Your task to perform on an android device: Search for bose soundsport free on newegg.com, select the first entry, and add it to the cart. Image 0: 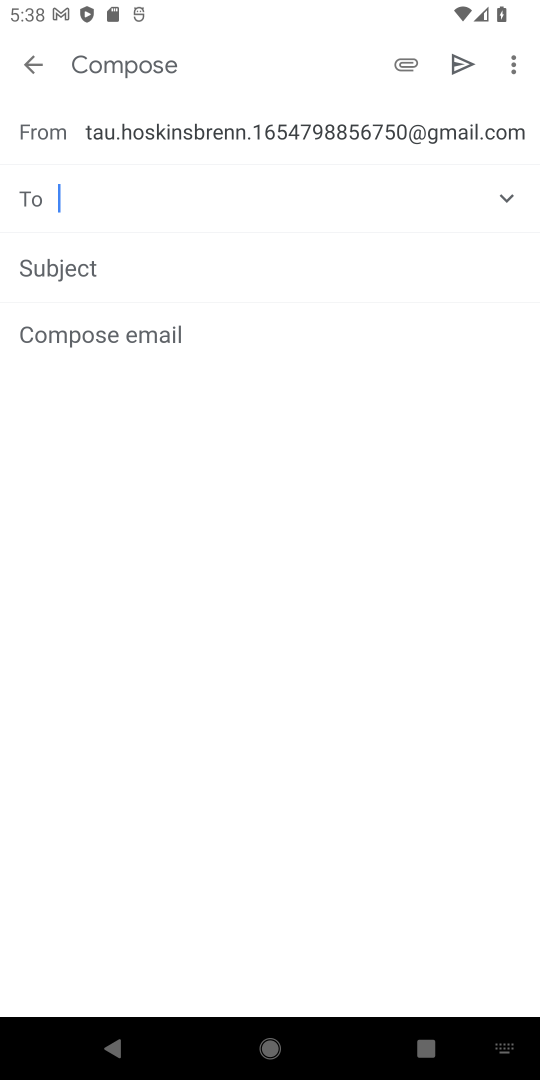
Step 0: press home button
Your task to perform on an android device: Search for bose soundsport free on newegg.com, select the first entry, and add it to the cart. Image 1: 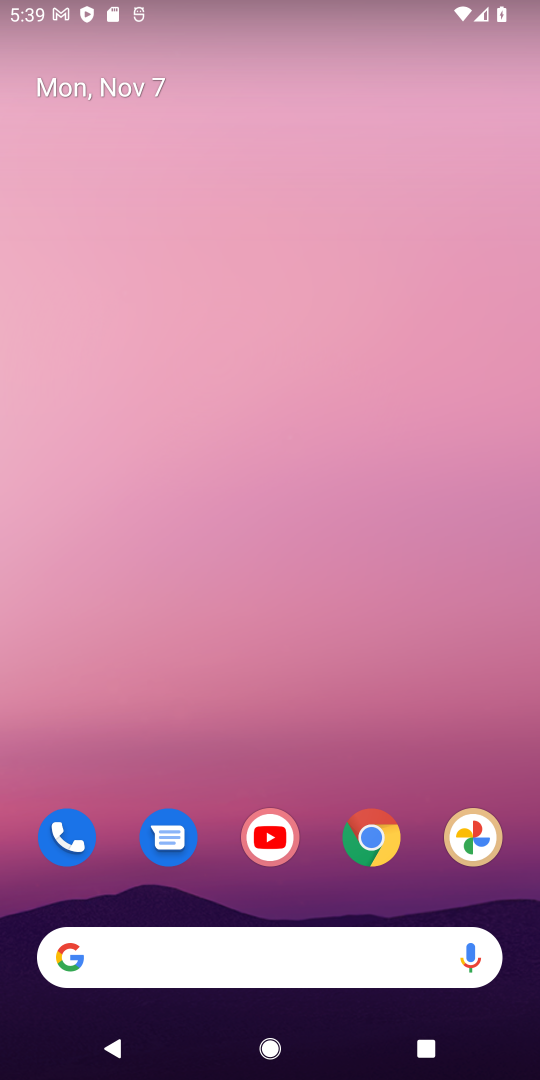
Step 1: click (368, 827)
Your task to perform on an android device: Search for bose soundsport free on newegg.com, select the first entry, and add it to the cart. Image 2: 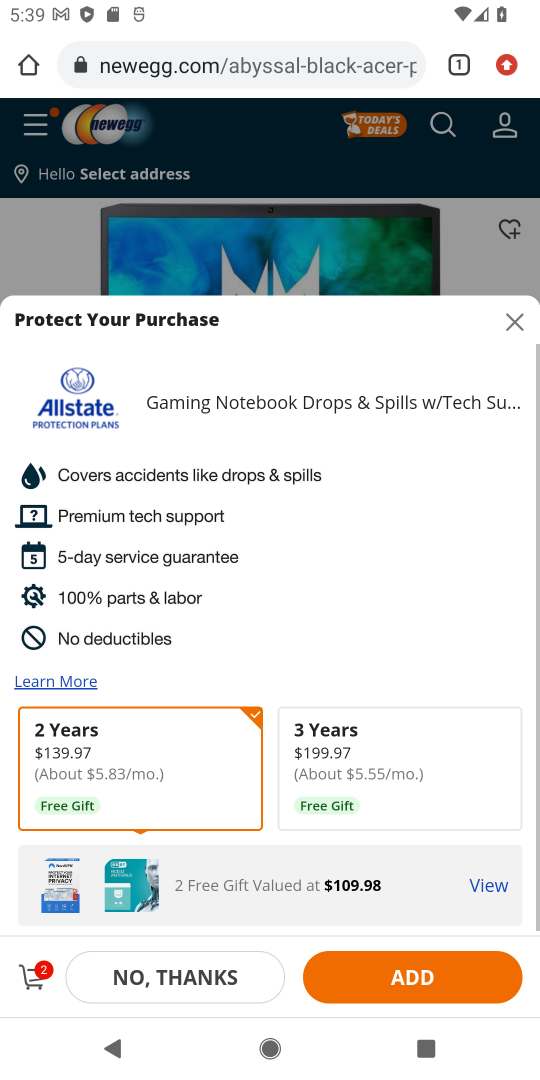
Step 2: click (326, 68)
Your task to perform on an android device: Search for bose soundsport free on newegg.com, select the first entry, and add it to the cart. Image 3: 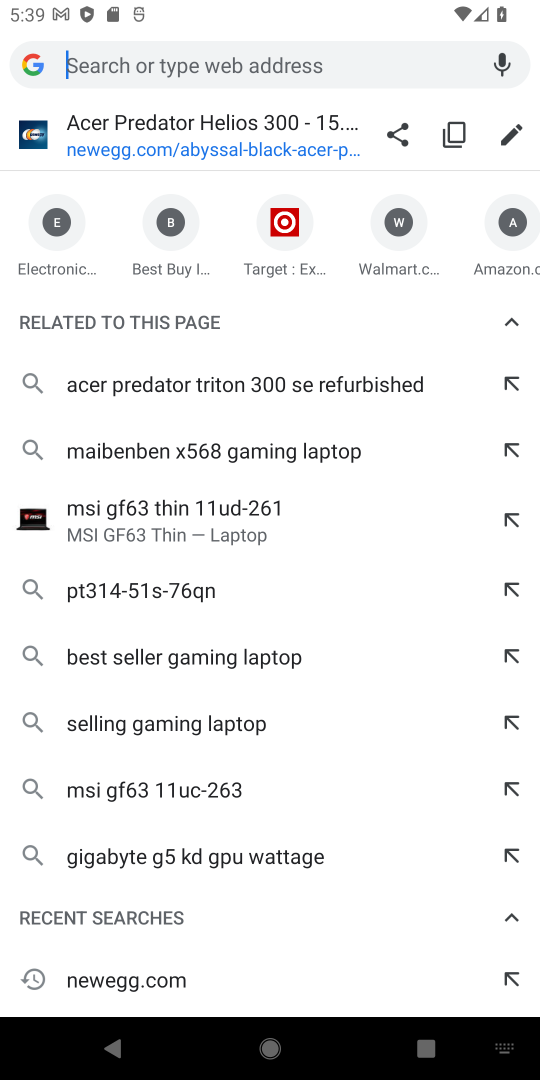
Step 3: type "newegg.com"
Your task to perform on an android device: Search for bose soundsport free on newegg.com, select the first entry, and add it to the cart. Image 4: 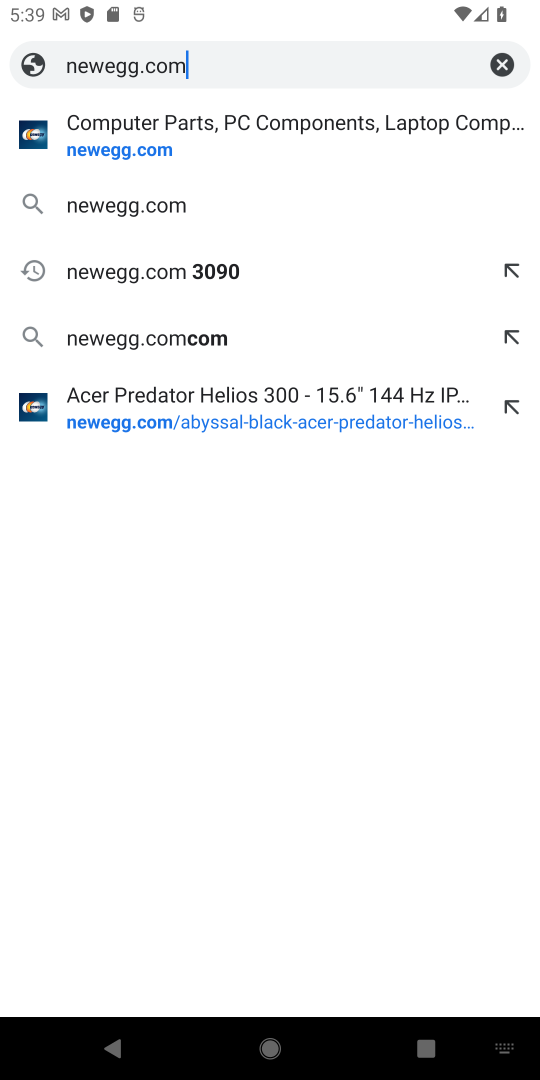
Step 4: click (231, 122)
Your task to perform on an android device: Search for bose soundsport free on newegg.com, select the first entry, and add it to the cart. Image 5: 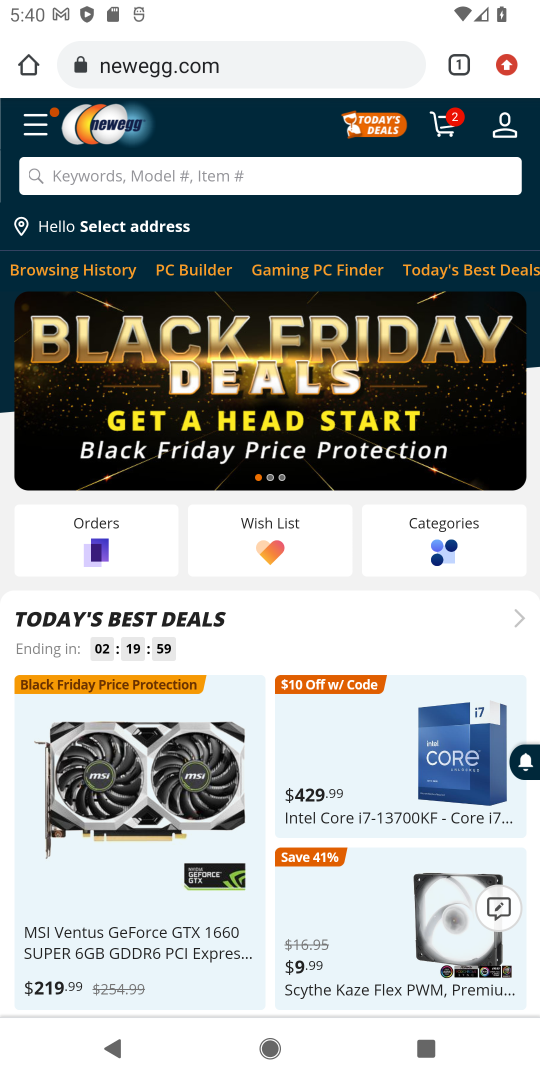
Step 5: click (253, 192)
Your task to perform on an android device: Search for bose soundsport free on newegg.com, select the first entry, and add it to the cart. Image 6: 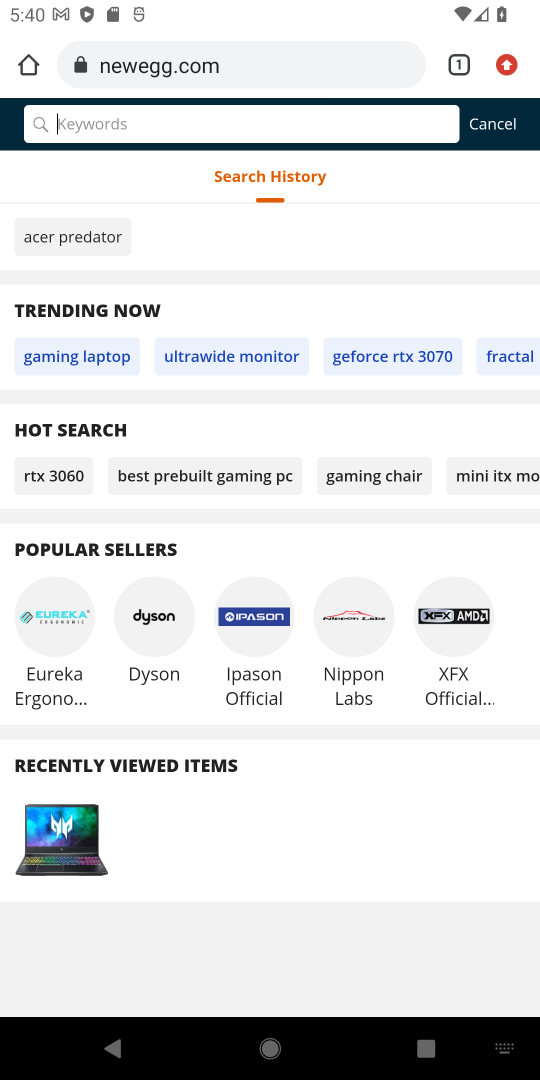
Step 6: type "bose soundsport"
Your task to perform on an android device: Search for bose soundsport free on newegg.com, select the first entry, and add it to the cart. Image 7: 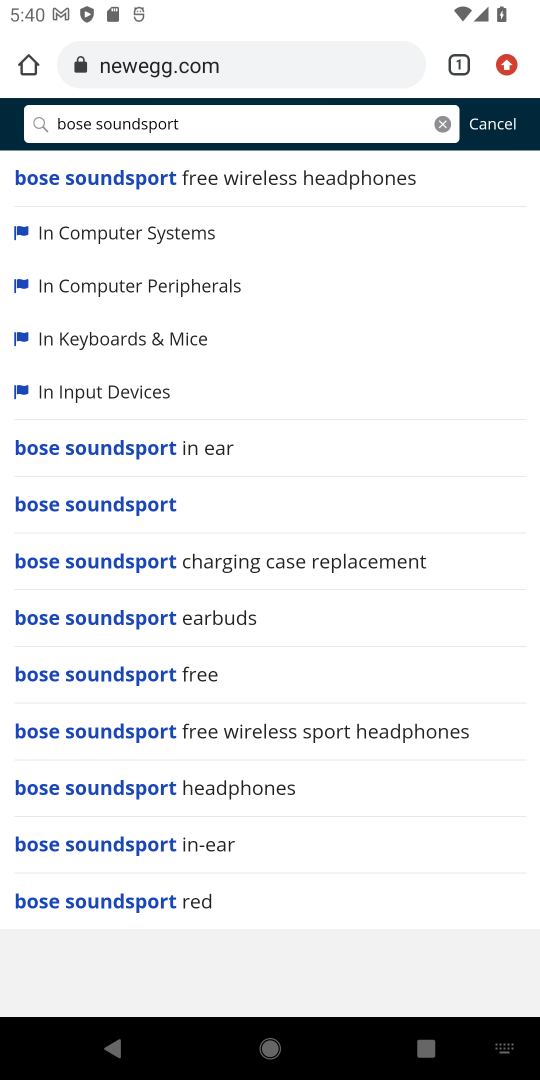
Step 7: press enter
Your task to perform on an android device: Search for bose soundsport free on newegg.com, select the first entry, and add it to the cart. Image 8: 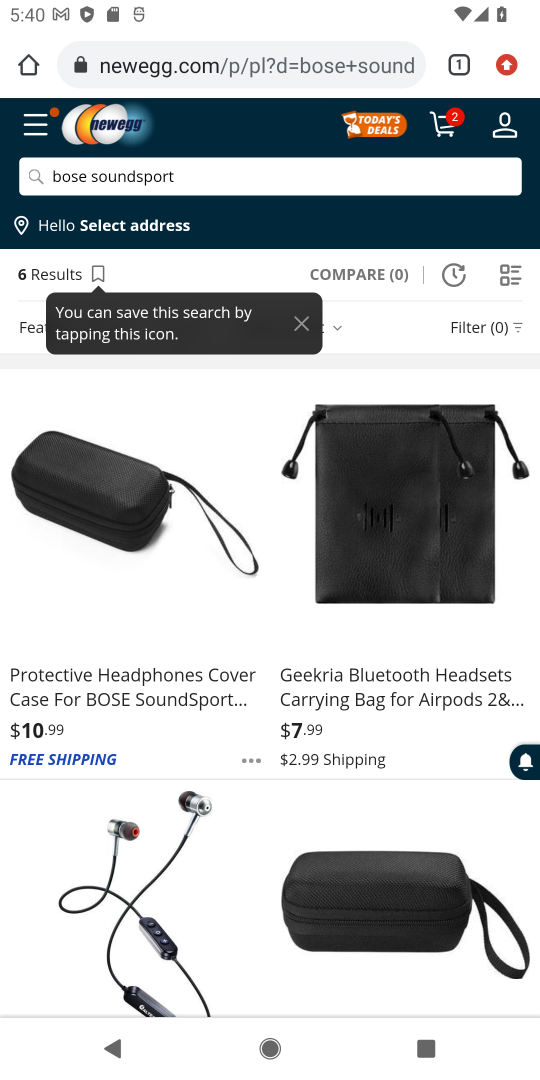
Step 8: click (159, 548)
Your task to perform on an android device: Search for bose soundsport free on newegg.com, select the first entry, and add it to the cart. Image 9: 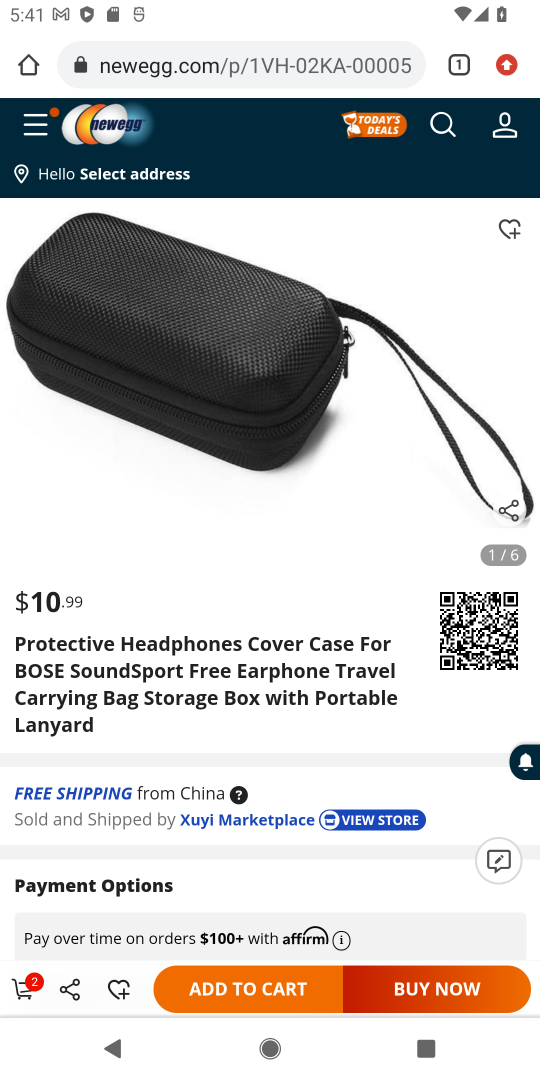
Step 9: click (233, 996)
Your task to perform on an android device: Search for bose soundsport free on newegg.com, select the first entry, and add it to the cart. Image 10: 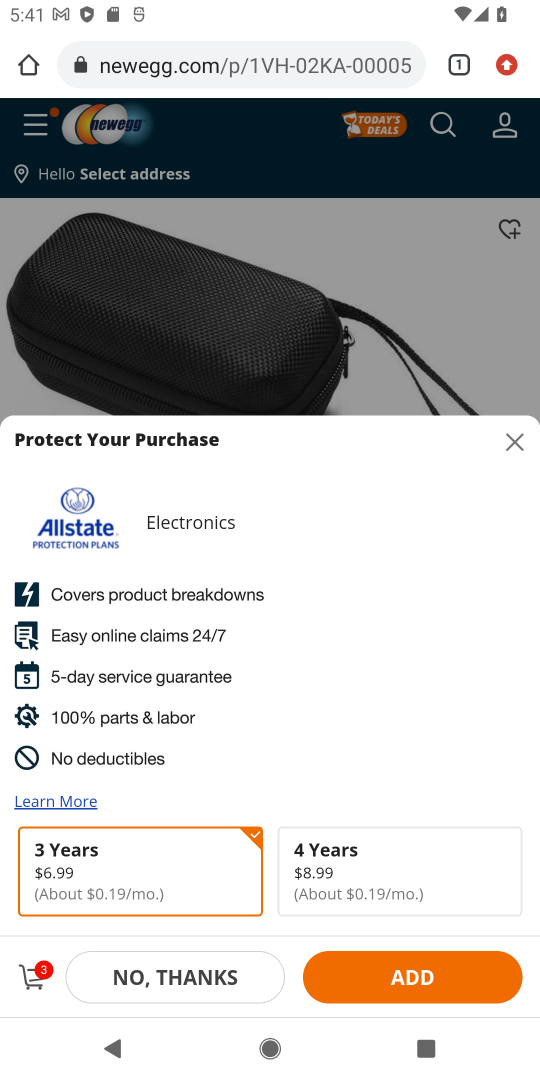
Step 10: click (517, 453)
Your task to perform on an android device: Search for bose soundsport free on newegg.com, select the first entry, and add it to the cart. Image 11: 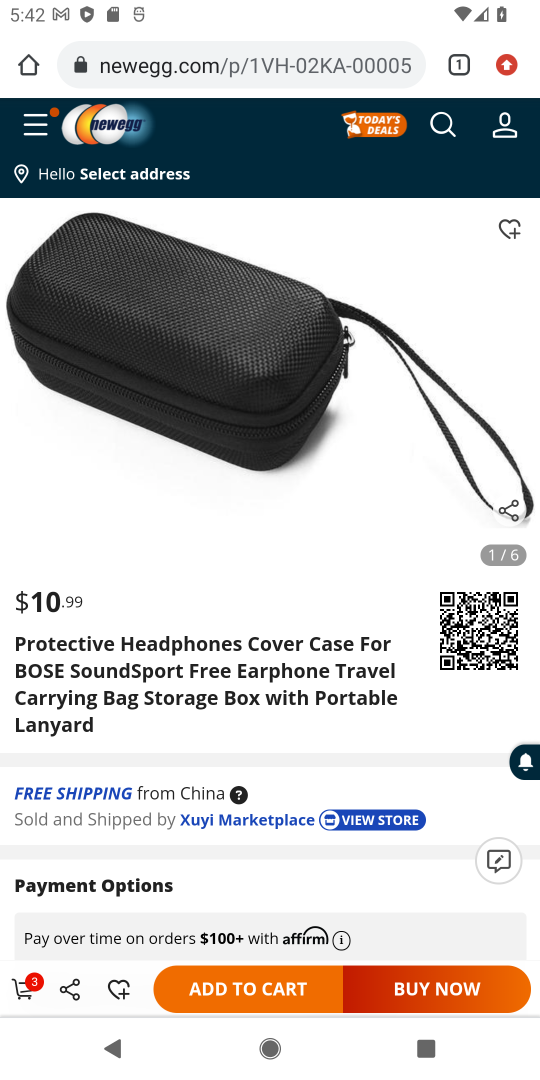
Step 11: click (39, 135)
Your task to perform on an android device: Search for bose soundsport free on newegg.com, select the first entry, and add it to the cart. Image 12: 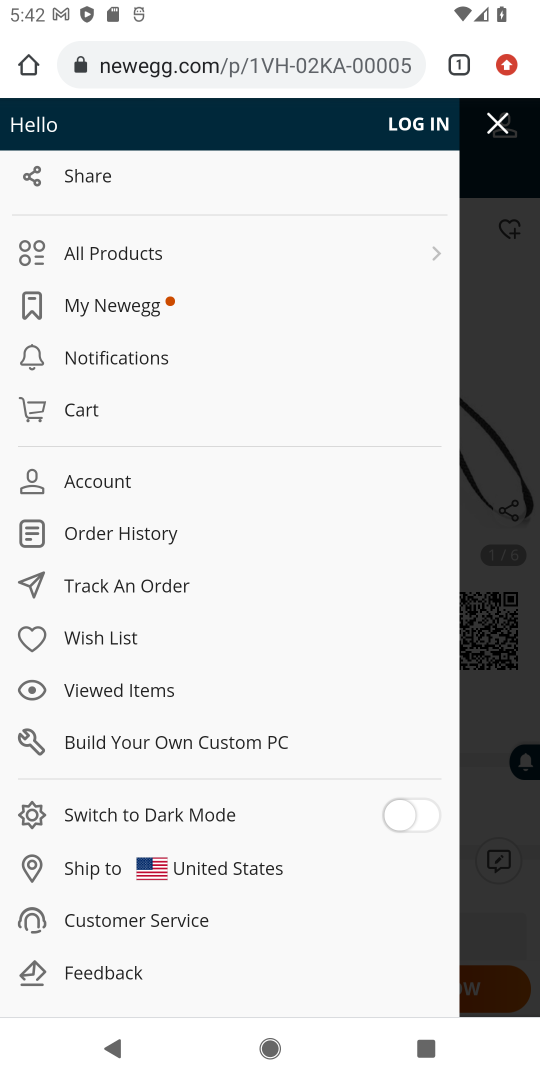
Step 12: click (73, 413)
Your task to perform on an android device: Search for bose soundsport free on newegg.com, select the first entry, and add it to the cart. Image 13: 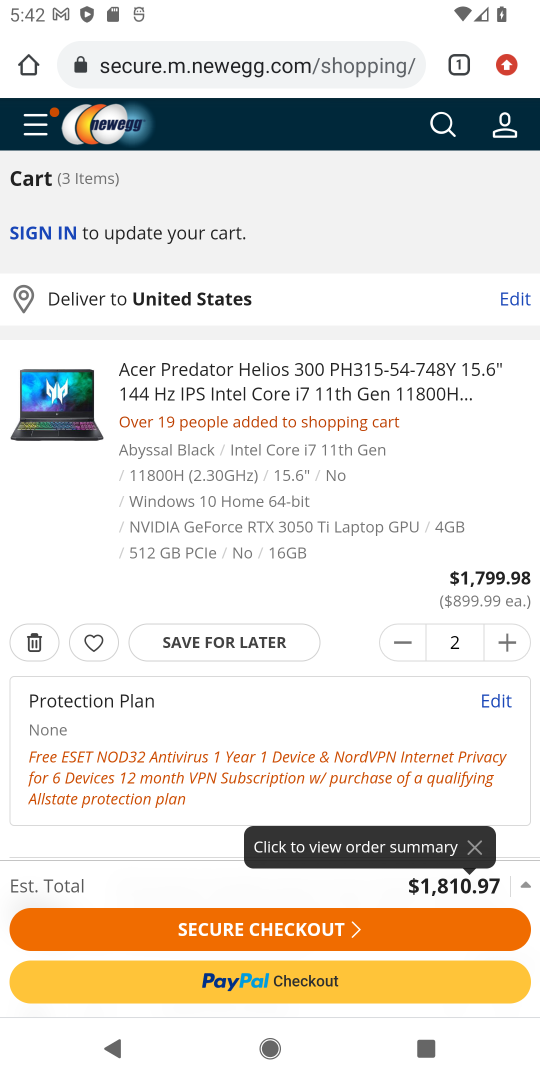
Step 13: task complete